Your task to perform on an android device: toggle show notifications on the lock screen Image 0: 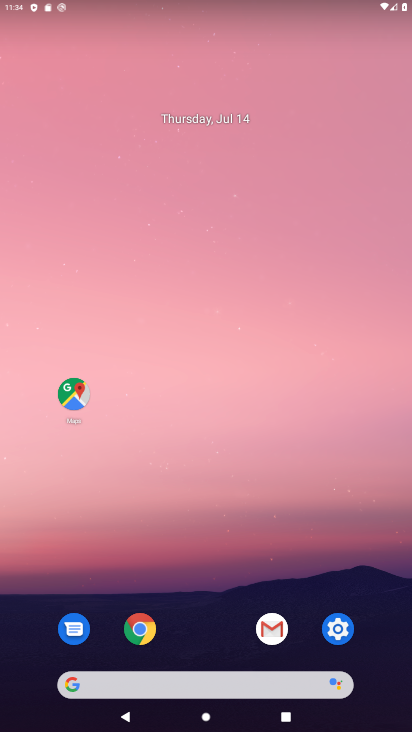
Step 0: press home button
Your task to perform on an android device: toggle show notifications on the lock screen Image 1: 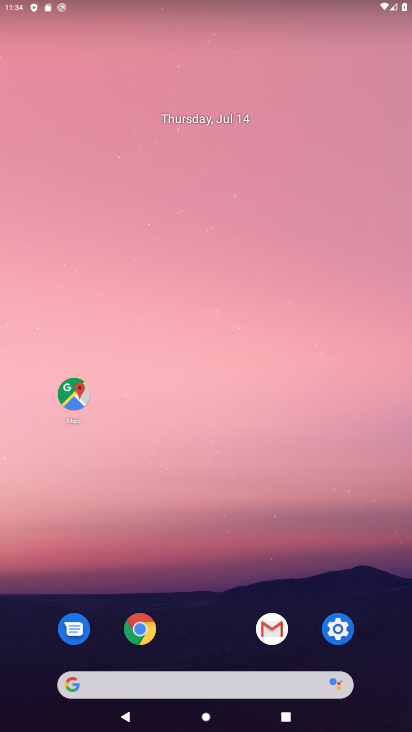
Step 1: click (321, 628)
Your task to perform on an android device: toggle show notifications on the lock screen Image 2: 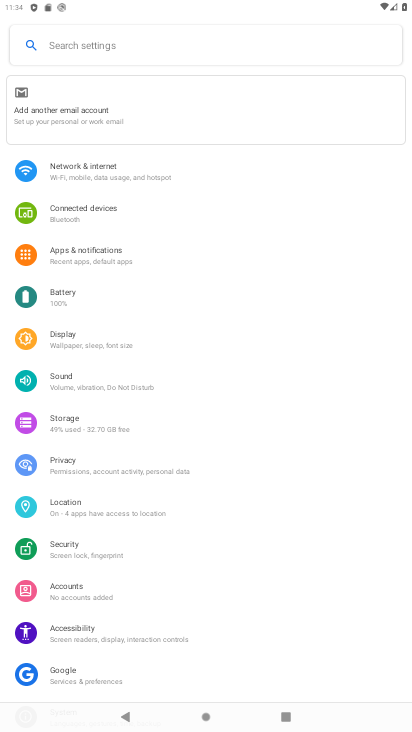
Step 2: click (112, 43)
Your task to perform on an android device: toggle show notifications on the lock screen Image 3: 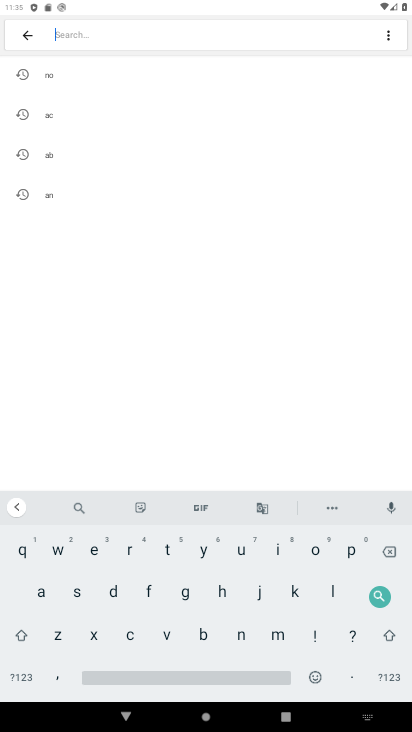
Step 3: click (87, 77)
Your task to perform on an android device: toggle show notifications on the lock screen Image 4: 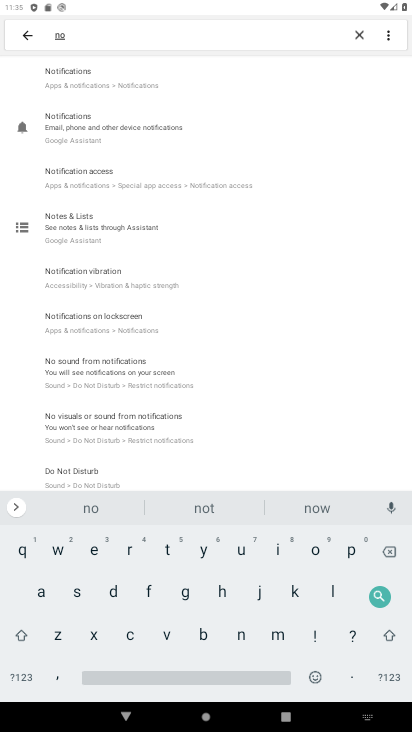
Step 4: click (83, 80)
Your task to perform on an android device: toggle show notifications on the lock screen Image 5: 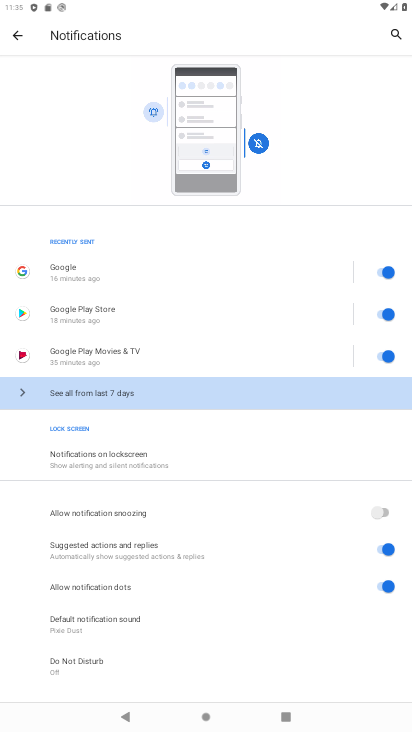
Step 5: click (125, 437)
Your task to perform on an android device: toggle show notifications on the lock screen Image 6: 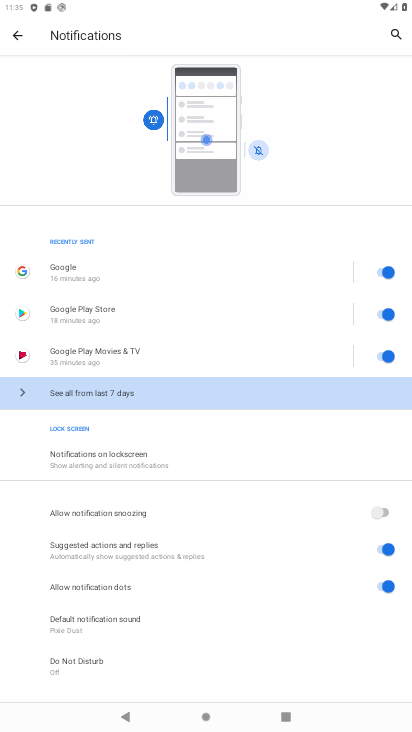
Step 6: click (104, 453)
Your task to perform on an android device: toggle show notifications on the lock screen Image 7: 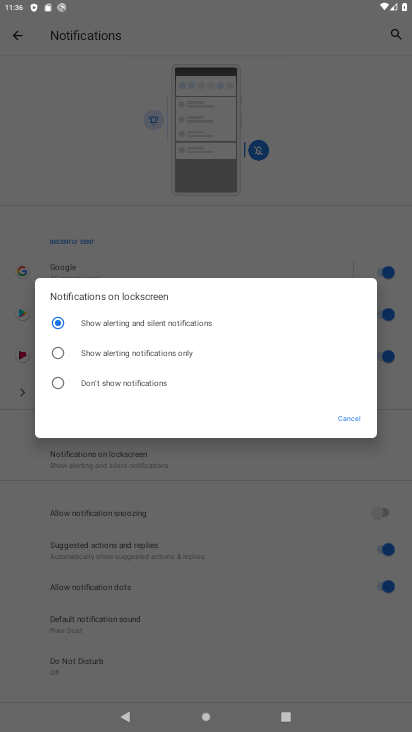
Step 7: task complete